Your task to perform on an android device: turn on improve location accuracy Image 0: 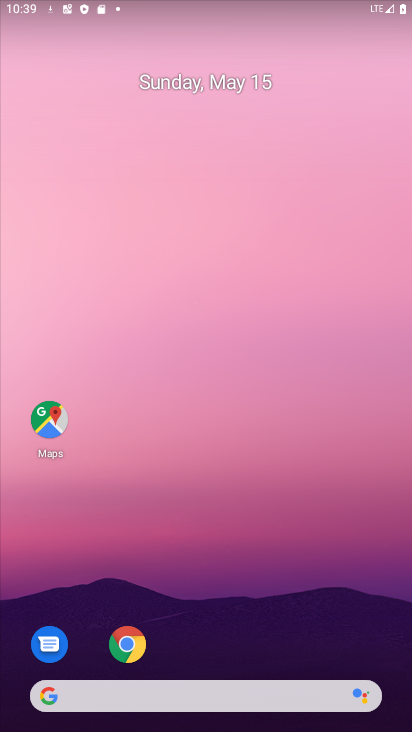
Step 0: drag from (263, 679) to (225, 331)
Your task to perform on an android device: turn on improve location accuracy Image 1: 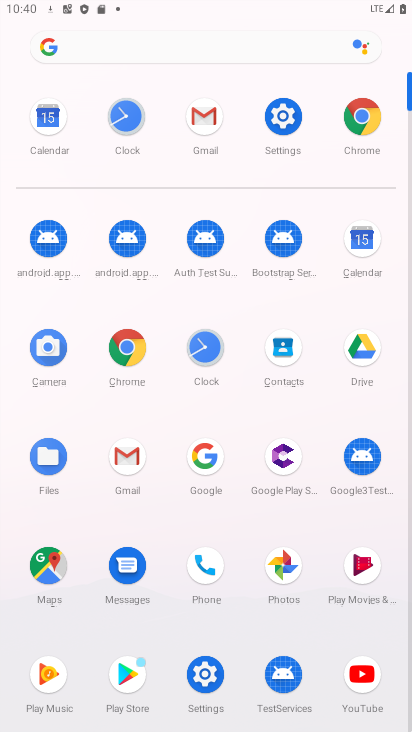
Step 1: click (277, 130)
Your task to perform on an android device: turn on improve location accuracy Image 2: 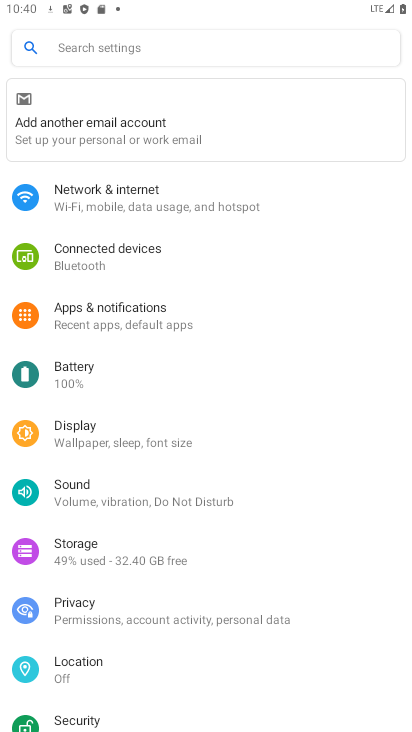
Step 2: click (134, 47)
Your task to perform on an android device: turn on improve location accuracy Image 3: 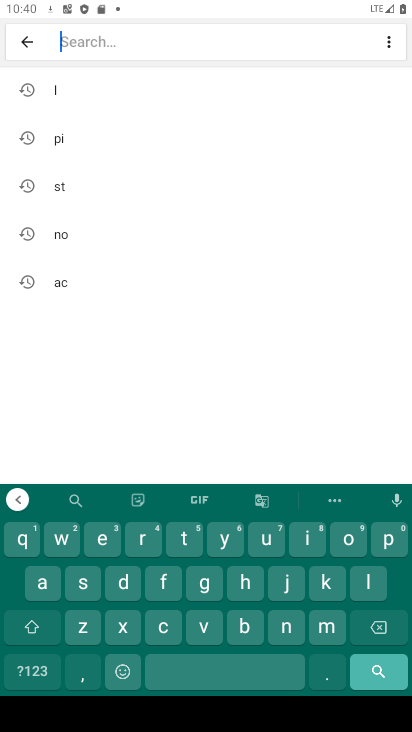
Step 3: click (87, 95)
Your task to perform on an android device: turn on improve location accuracy Image 4: 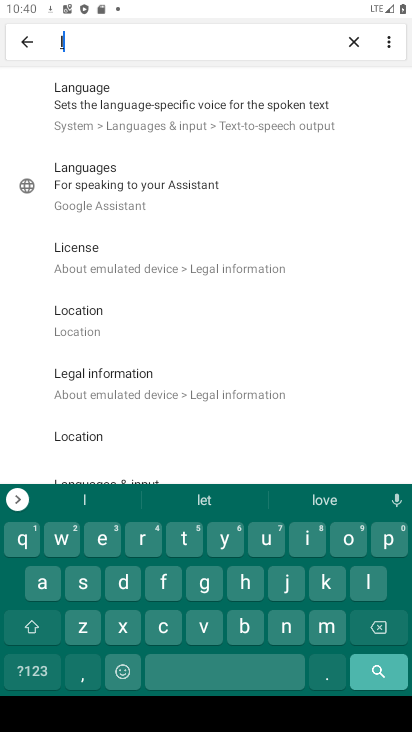
Step 4: click (154, 309)
Your task to perform on an android device: turn on improve location accuracy Image 5: 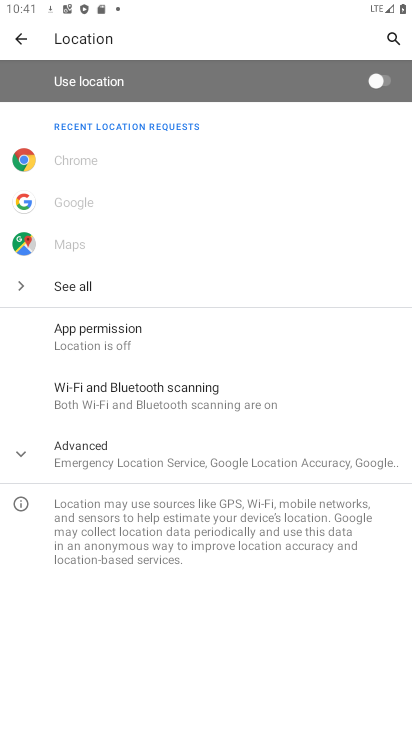
Step 5: task complete